Your task to perform on an android device: Open Chrome and go to settings Image 0: 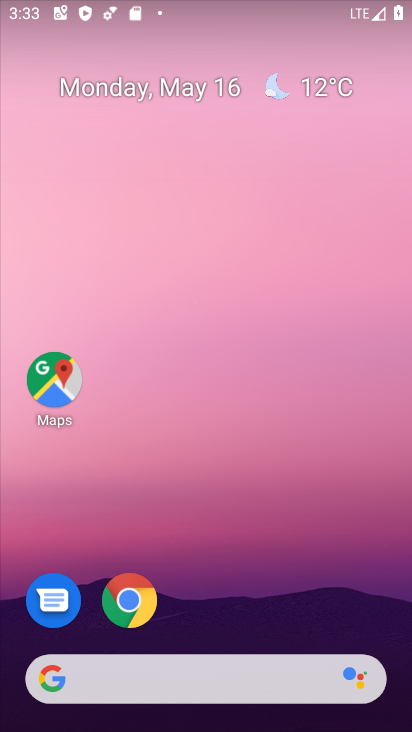
Step 0: click (142, 599)
Your task to perform on an android device: Open Chrome and go to settings Image 1: 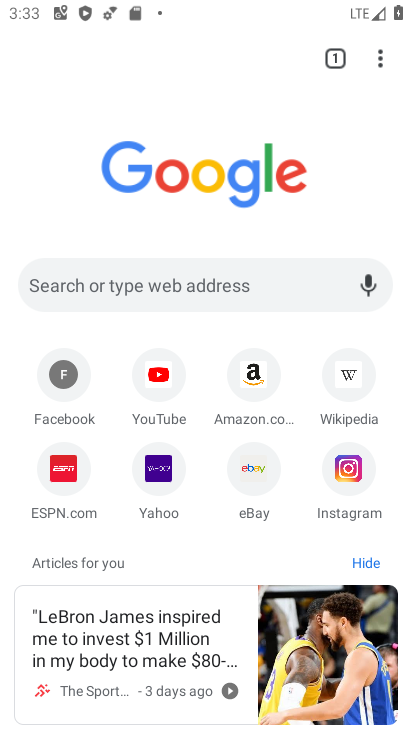
Step 1: task complete